Your task to perform on an android device: turn off data saver in the chrome app Image 0: 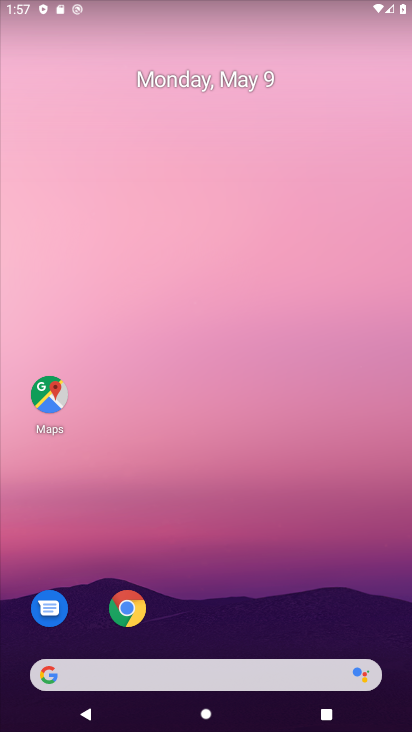
Step 0: click (273, 235)
Your task to perform on an android device: turn off data saver in the chrome app Image 1: 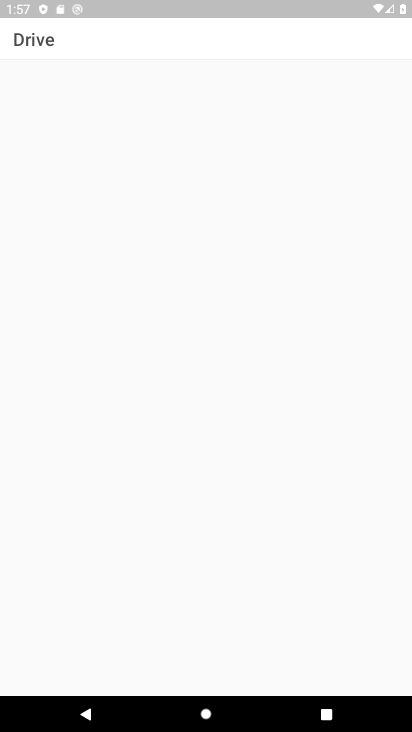
Step 1: drag from (207, 655) to (284, 188)
Your task to perform on an android device: turn off data saver in the chrome app Image 2: 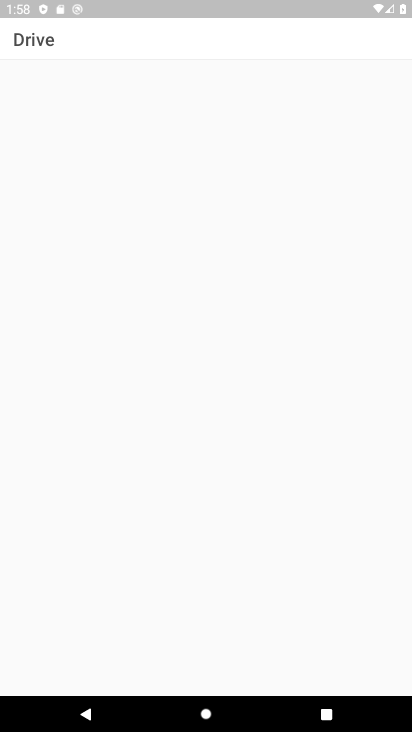
Step 2: press home button
Your task to perform on an android device: turn off data saver in the chrome app Image 3: 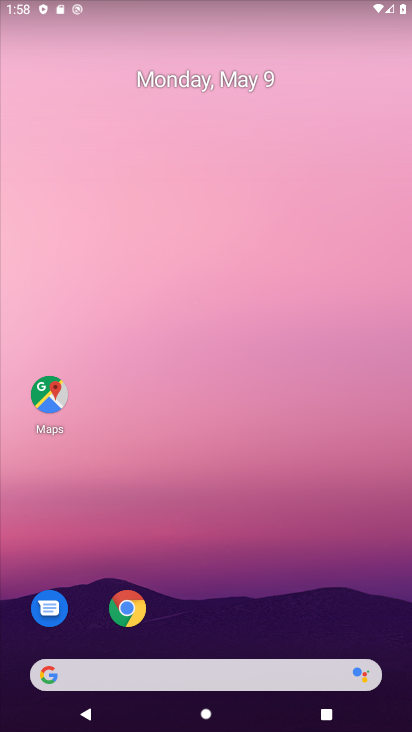
Step 3: drag from (227, 654) to (242, 196)
Your task to perform on an android device: turn off data saver in the chrome app Image 4: 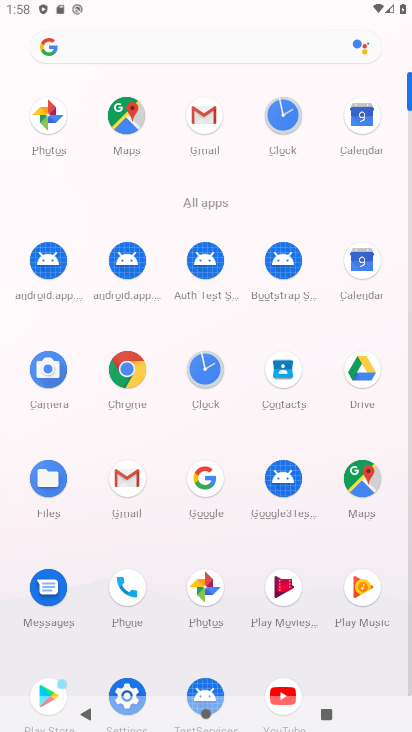
Step 4: drag from (210, 650) to (234, 568)
Your task to perform on an android device: turn off data saver in the chrome app Image 5: 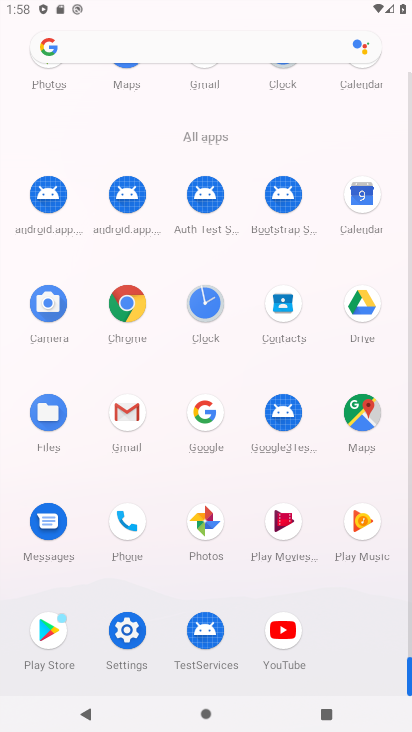
Step 5: click (121, 333)
Your task to perform on an android device: turn off data saver in the chrome app Image 6: 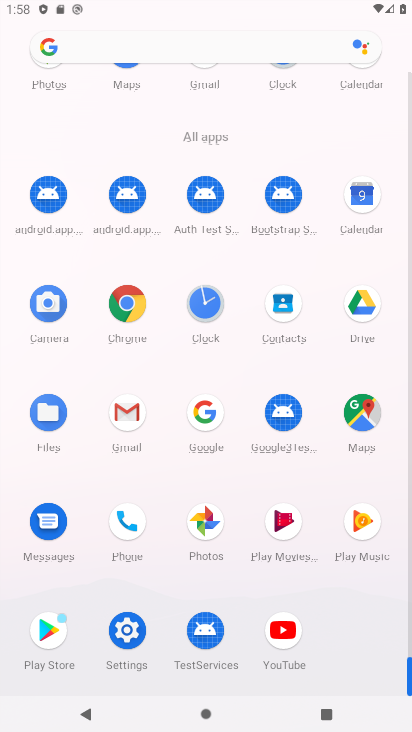
Step 6: click (121, 333)
Your task to perform on an android device: turn off data saver in the chrome app Image 7: 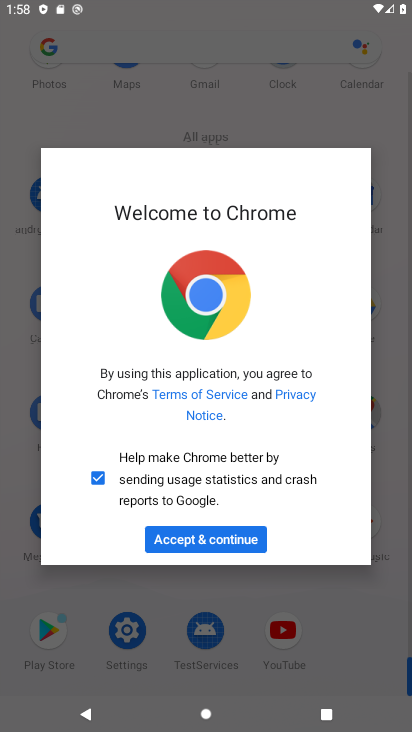
Step 7: click (235, 556)
Your task to perform on an android device: turn off data saver in the chrome app Image 8: 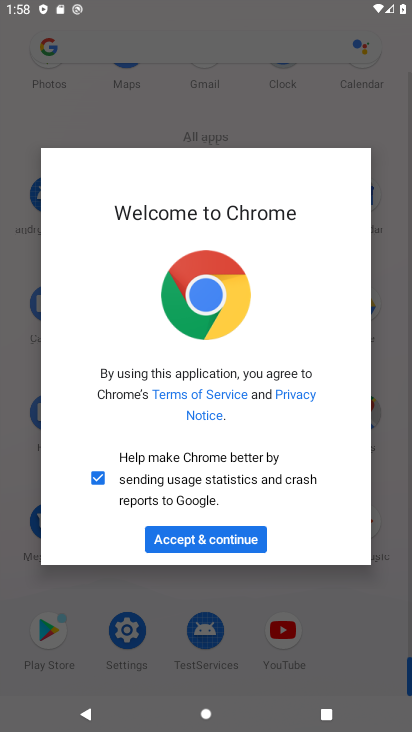
Step 8: click (228, 537)
Your task to perform on an android device: turn off data saver in the chrome app Image 9: 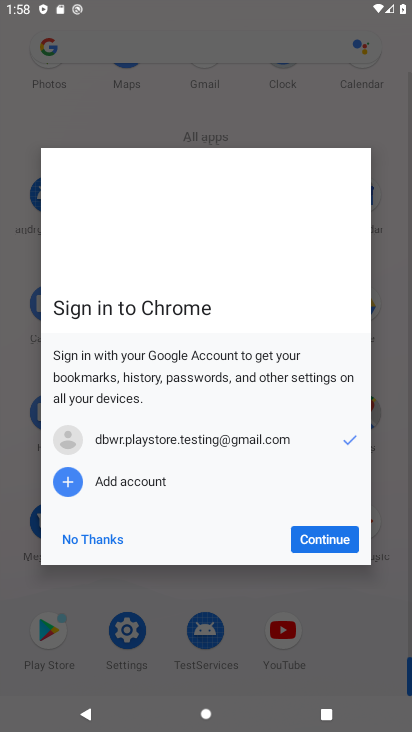
Step 9: click (338, 543)
Your task to perform on an android device: turn off data saver in the chrome app Image 10: 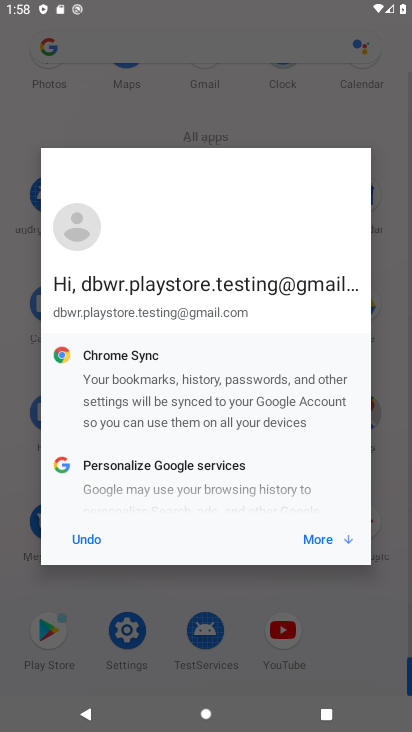
Step 10: click (338, 543)
Your task to perform on an android device: turn off data saver in the chrome app Image 11: 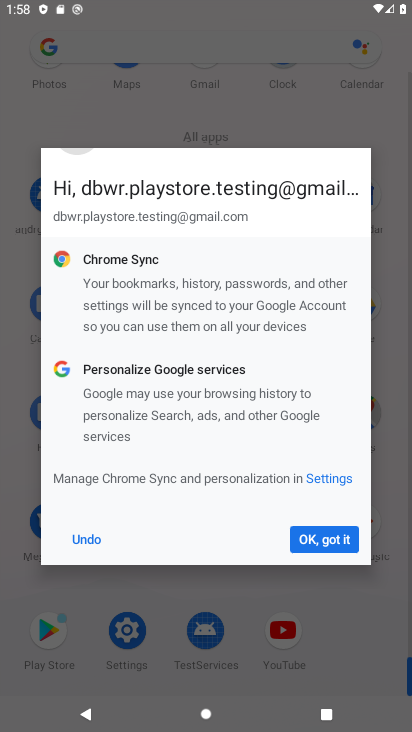
Step 11: click (338, 543)
Your task to perform on an android device: turn off data saver in the chrome app Image 12: 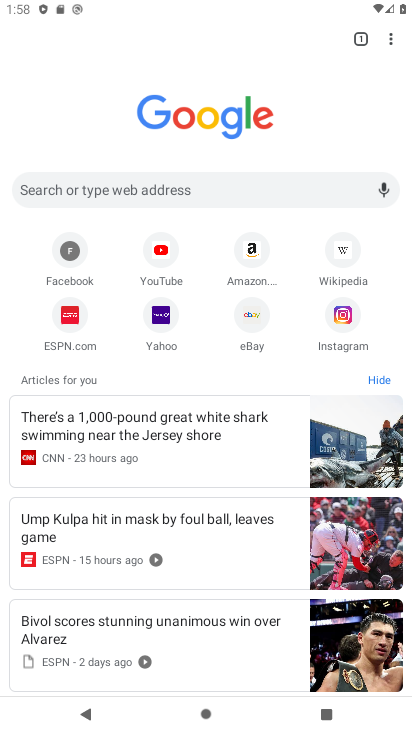
Step 12: drag from (394, 39) to (315, 335)
Your task to perform on an android device: turn off data saver in the chrome app Image 13: 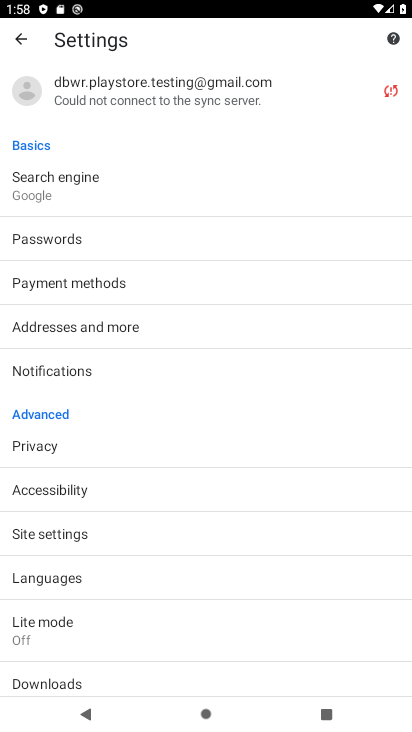
Step 13: drag from (223, 661) to (260, 500)
Your task to perform on an android device: turn off data saver in the chrome app Image 14: 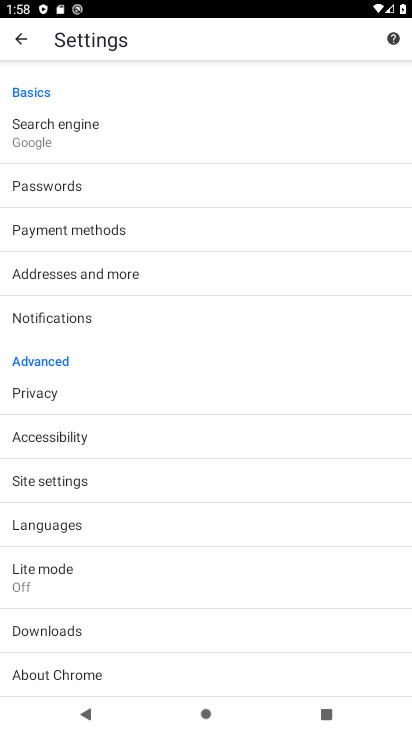
Step 14: click (203, 603)
Your task to perform on an android device: turn off data saver in the chrome app Image 15: 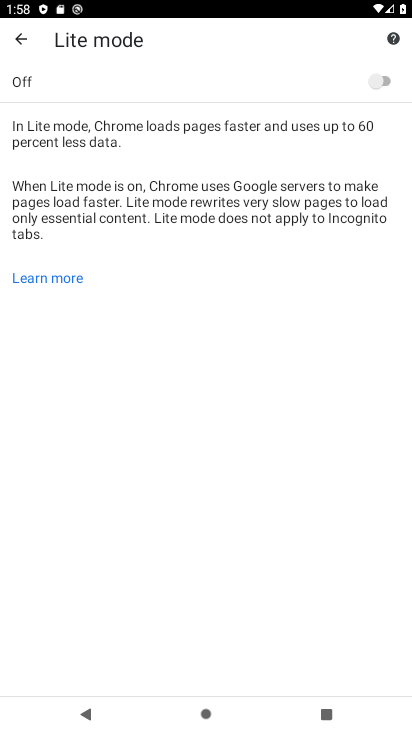
Step 15: task complete